Your task to perform on an android device: star an email in the gmail app Image 0: 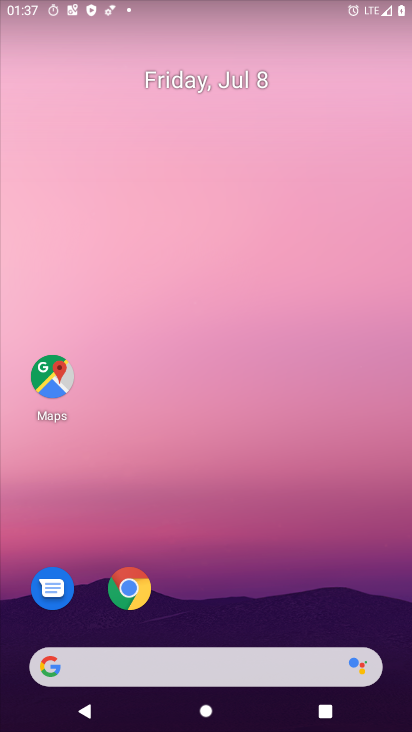
Step 0: drag from (168, 626) to (217, 142)
Your task to perform on an android device: star an email in the gmail app Image 1: 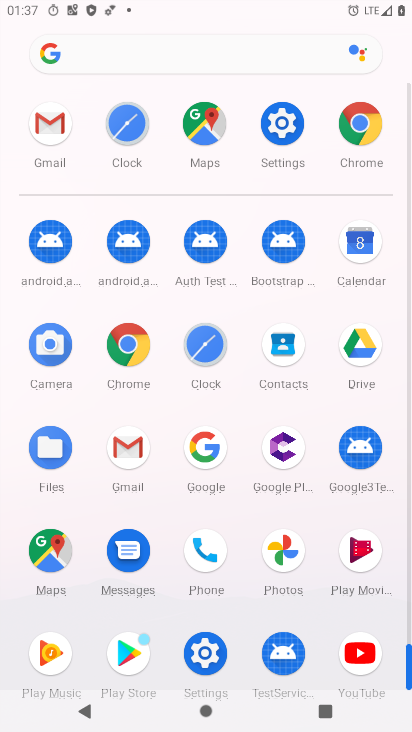
Step 1: click (135, 463)
Your task to perform on an android device: star an email in the gmail app Image 2: 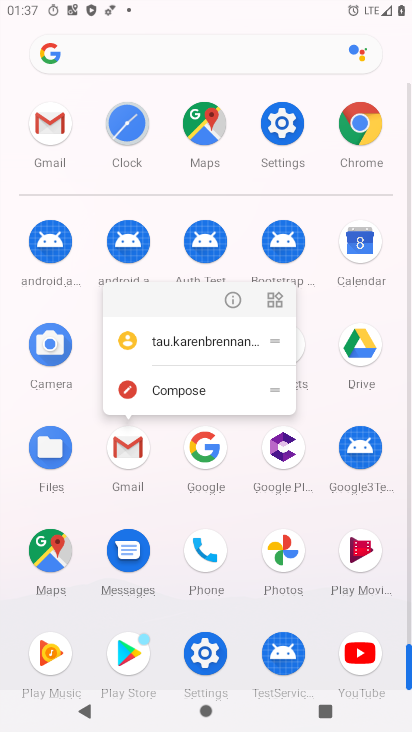
Step 2: click (240, 306)
Your task to perform on an android device: star an email in the gmail app Image 3: 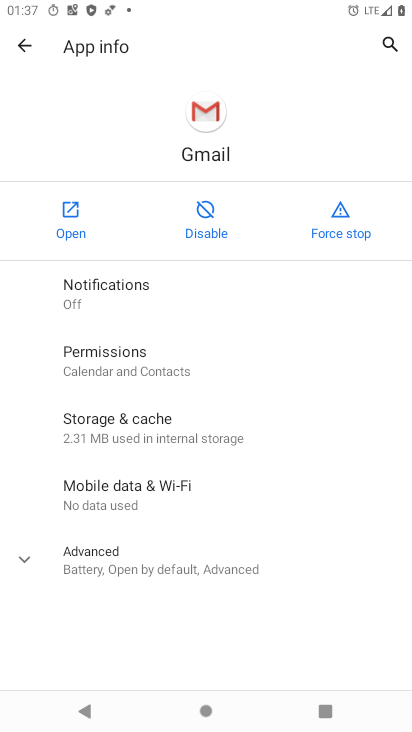
Step 3: click (84, 213)
Your task to perform on an android device: star an email in the gmail app Image 4: 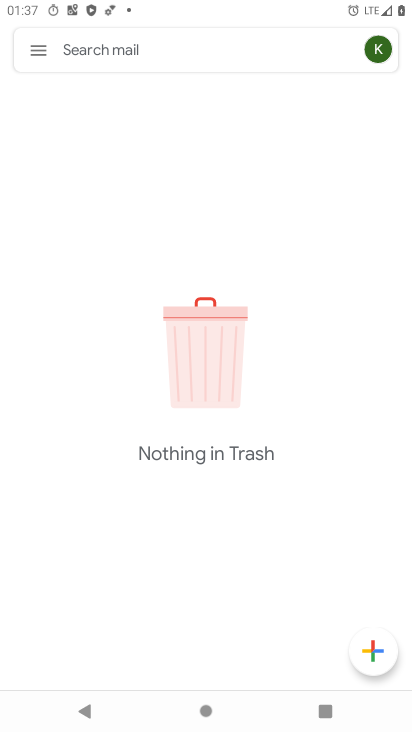
Step 4: click (40, 50)
Your task to perform on an android device: star an email in the gmail app Image 5: 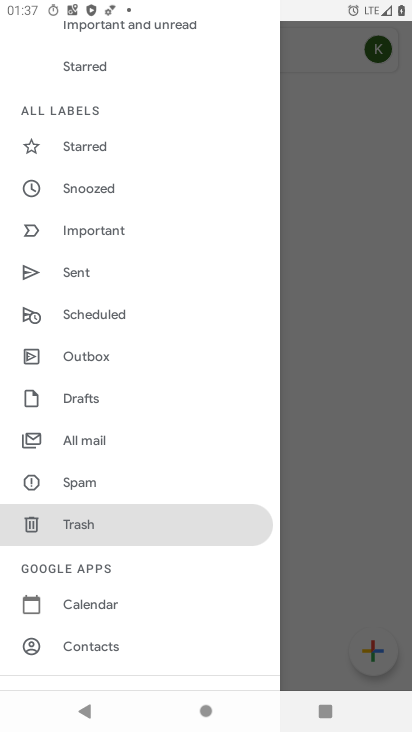
Step 5: click (102, 150)
Your task to perform on an android device: star an email in the gmail app Image 6: 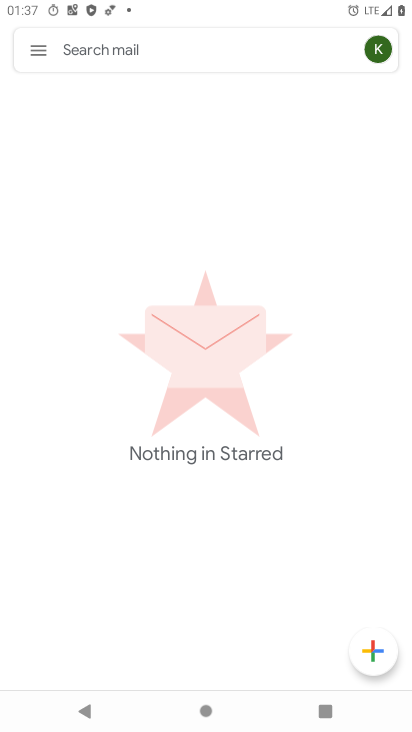
Step 6: task complete